Your task to perform on an android device: turn off notifications in google photos Image 0: 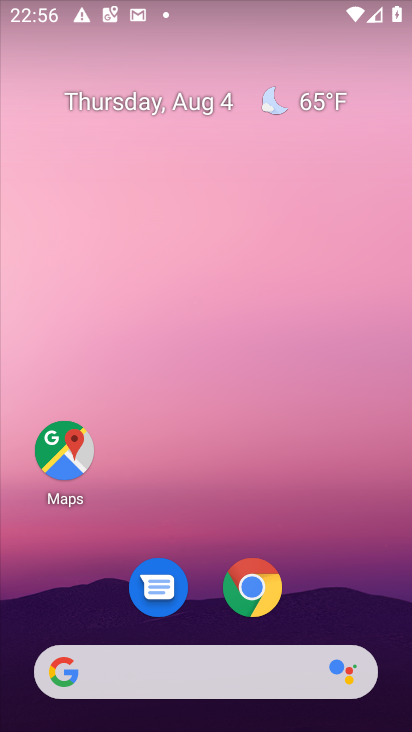
Step 0: drag from (112, 580) to (201, 149)
Your task to perform on an android device: turn off notifications in google photos Image 1: 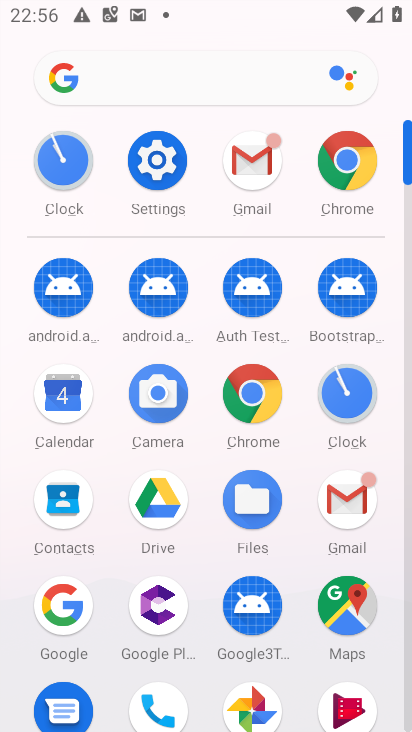
Step 1: click (259, 703)
Your task to perform on an android device: turn off notifications in google photos Image 2: 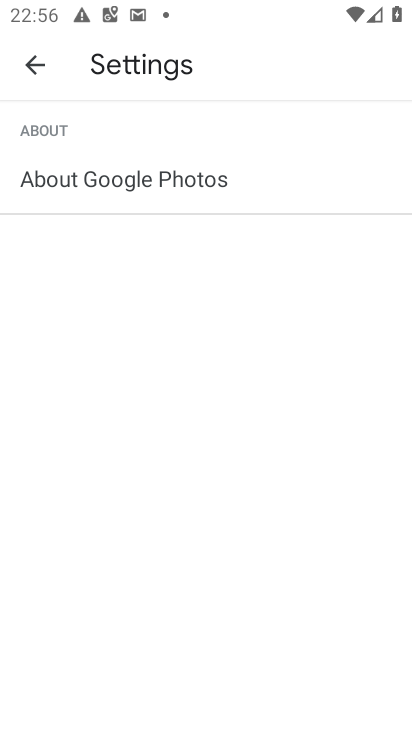
Step 2: click (34, 71)
Your task to perform on an android device: turn off notifications in google photos Image 3: 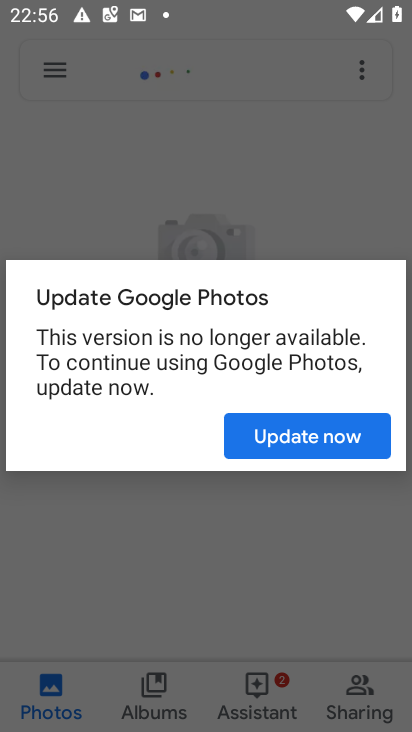
Step 3: click (261, 437)
Your task to perform on an android device: turn off notifications in google photos Image 4: 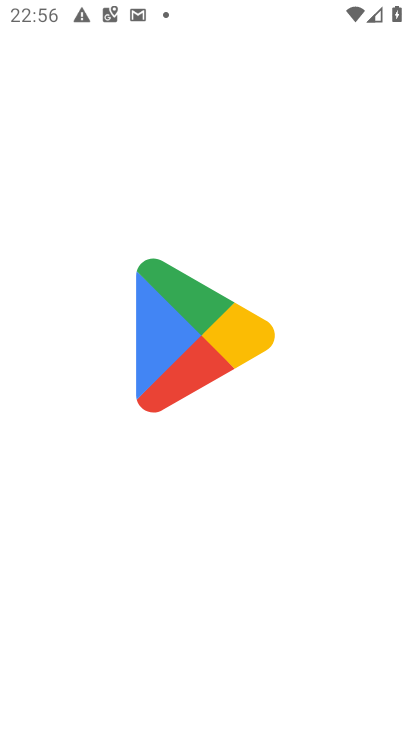
Step 4: press back button
Your task to perform on an android device: turn off notifications in google photos Image 5: 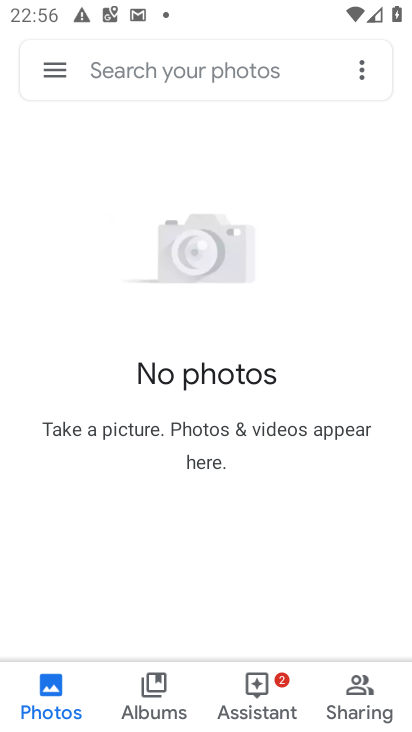
Step 5: click (365, 66)
Your task to perform on an android device: turn off notifications in google photos Image 6: 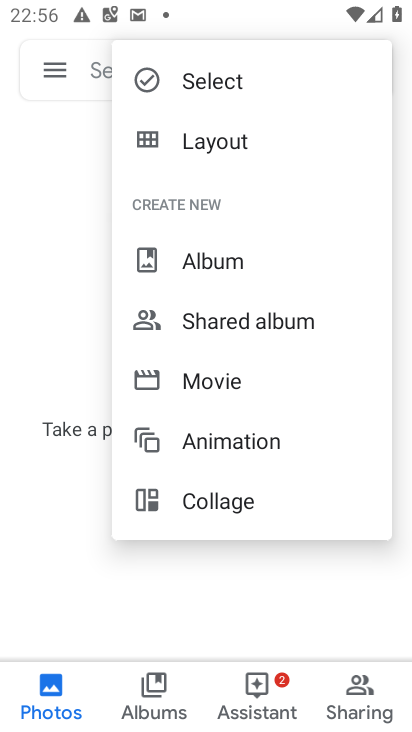
Step 6: click (67, 67)
Your task to perform on an android device: turn off notifications in google photos Image 7: 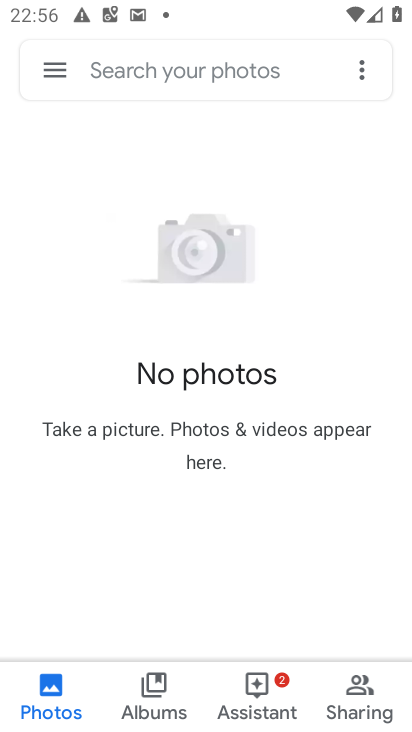
Step 7: click (49, 62)
Your task to perform on an android device: turn off notifications in google photos Image 8: 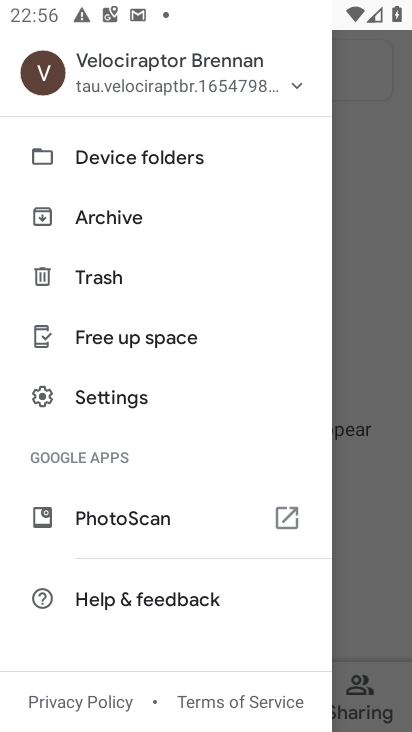
Step 8: click (140, 396)
Your task to perform on an android device: turn off notifications in google photos Image 9: 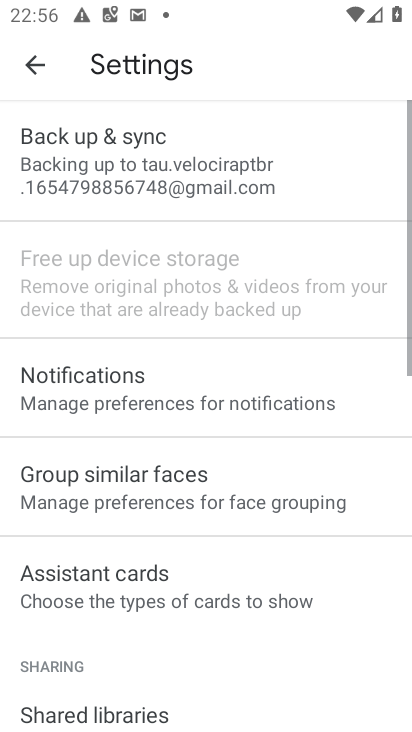
Step 9: click (119, 388)
Your task to perform on an android device: turn off notifications in google photos Image 10: 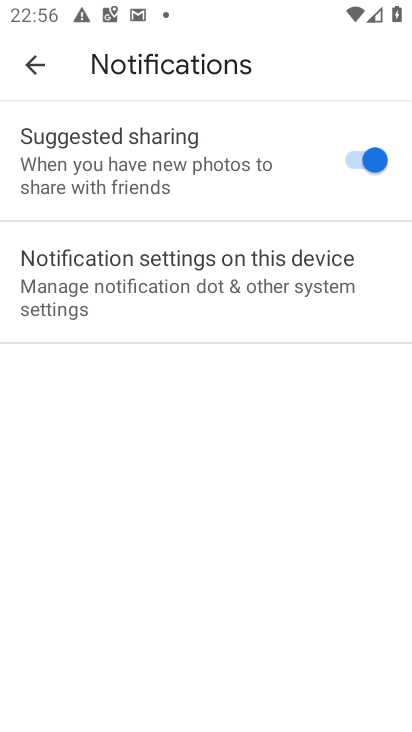
Step 10: click (98, 320)
Your task to perform on an android device: turn off notifications in google photos Image 11: 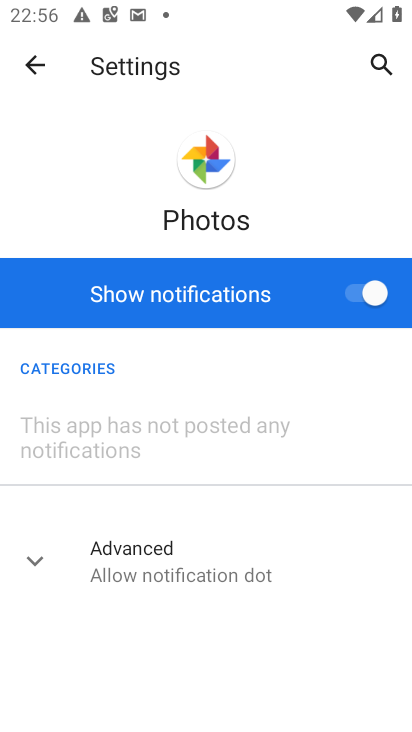
Step 11: click (353, 292)
Your task to perform on an android device: turn off notifications in google photos Image 12: 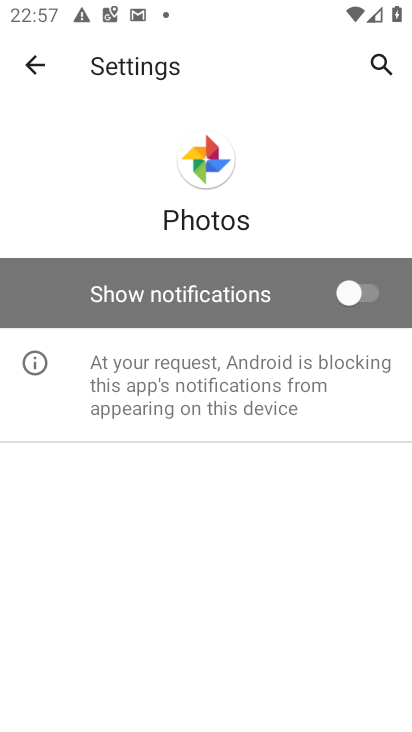
Step 12: task complete